Your task to perform on an android device: toggle notifications settings in the gmail app Image 0: 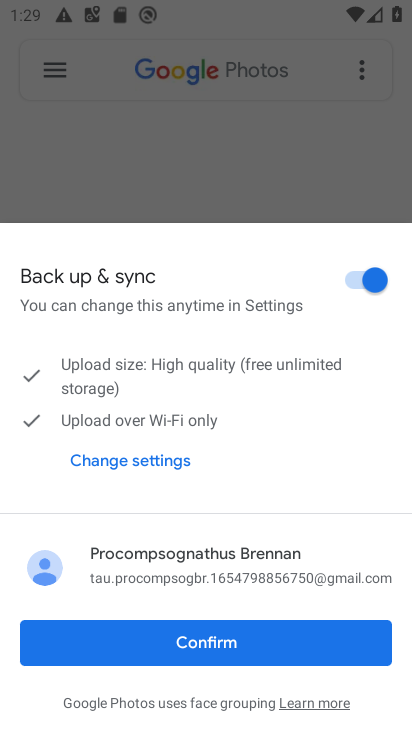
Step 0: press home button
Your task to perform on an android device: toggle notifications settings in the gmail app Image 1: 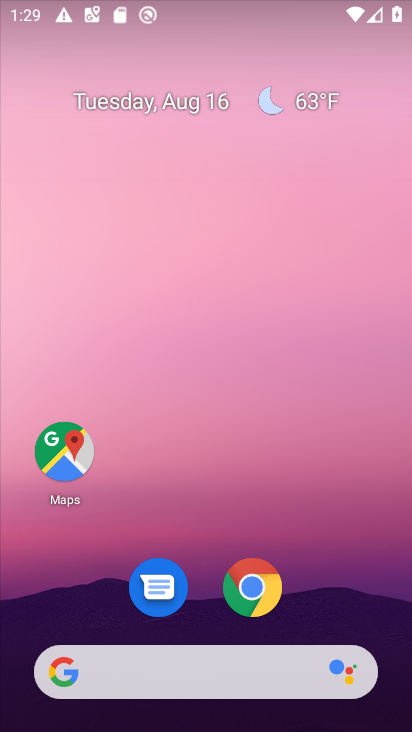
Step 1: drag from (168, 653) to (229, 258)
Your task to perform on an android device: toggle notifications settings in the gmail app Image 2: 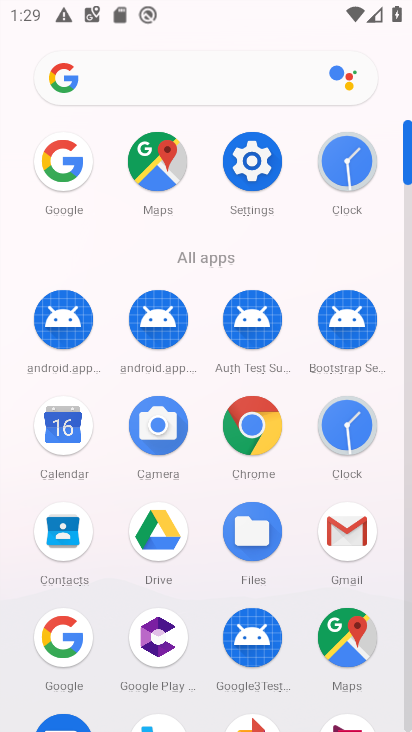
Step 2: click (343, 544)
Your task to perform on an android device: toggle notifications settings in the gmail app Image 3: 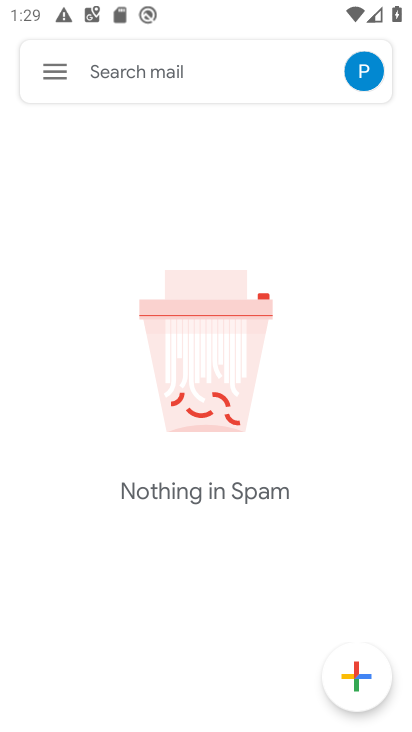
Step 3: click (55, 74)
Your task to perform on an android device: toggle notifications settings in the gmail app Image 4: 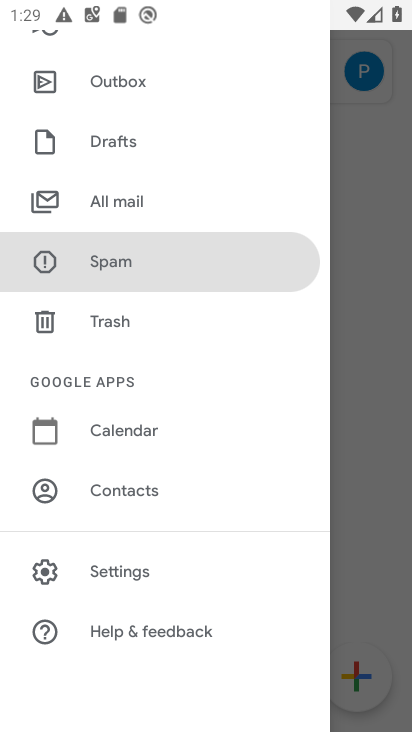
Step 4: click (89, 574)
Your task to perform on an android device: toggle notifications settings in the gmail app Image 5: 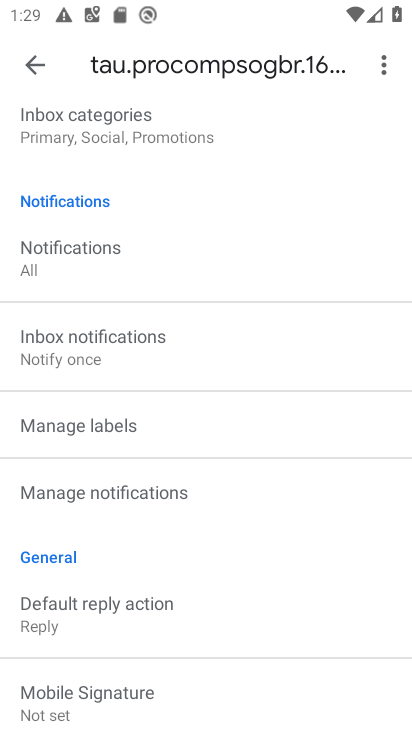
Step 5: click (72, 497)
Your task to perform on an android device: toggle notifications settings in the gmail app Image 6: 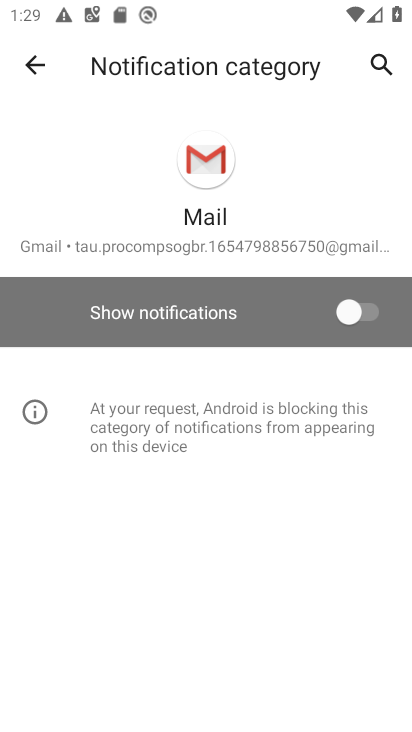
Step 6: click (363, 307)
Your task to perform on an android device: toggle notifications settings in the gmail app Image 7: 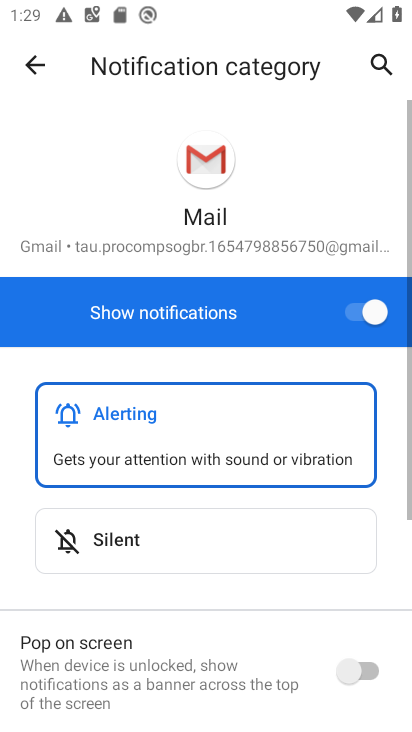
Step 7: task complete